Your task to perform on an android device: see creations saved in the google photos Image 0: 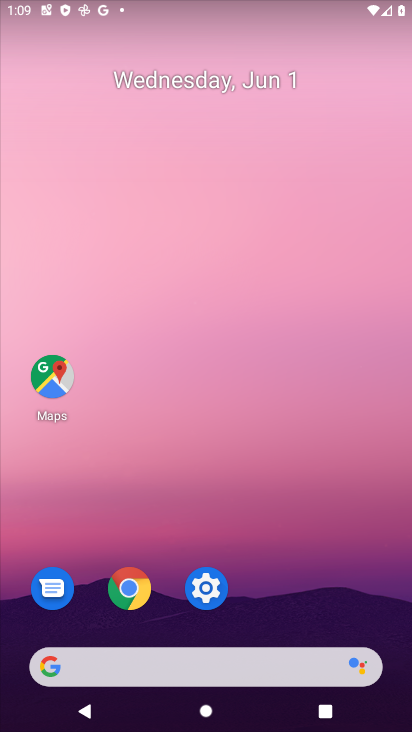
Step 0: drag from (244, 677) to (231, 157)
Your task to perform on an android device: see creations saved in the google photos Image 1: 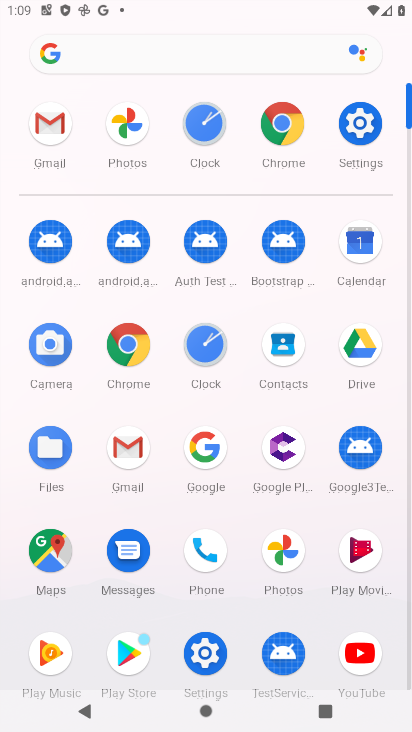
Step 1: click (289, 546)
Your task to perform on an android device: see creations saved in the google photos Image 2: 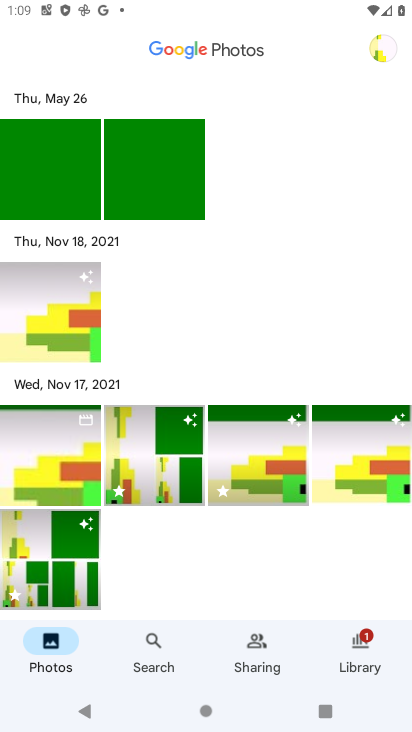
Step 2: click (238, 477)
Your task to perform on an android device: see creations saved in the google photos Image 3: 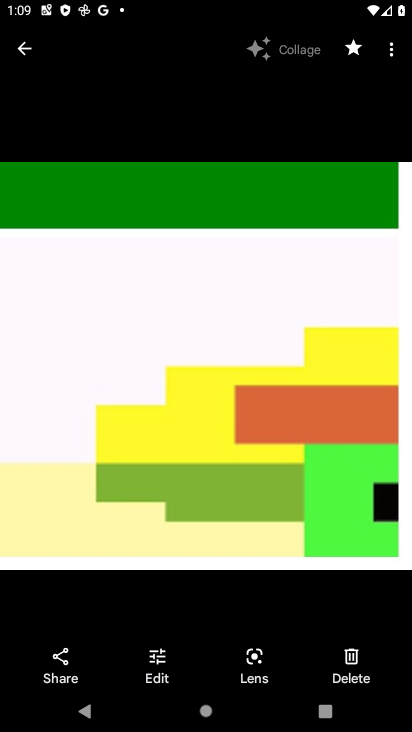
Step 3: click (391, 37)
Your task to perform on an android device: see creations saved in the google photos Image 4: 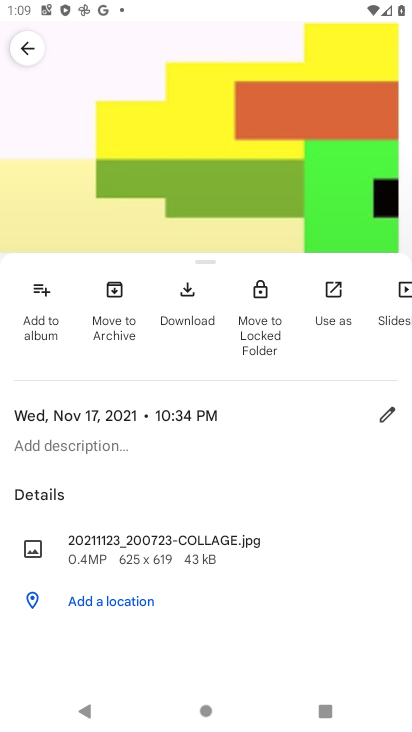
Step 4: task complete